Your task to perform on an android device: Open eBay Image 0: 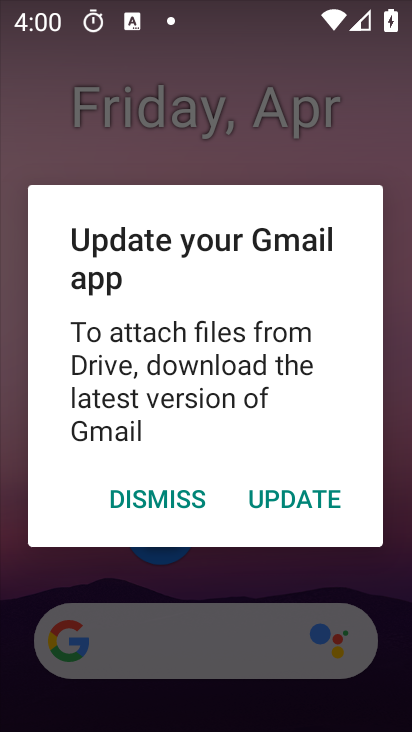
Step 0: click (185, 503)
Your task to perform on an android device: Open eBay Image 1: 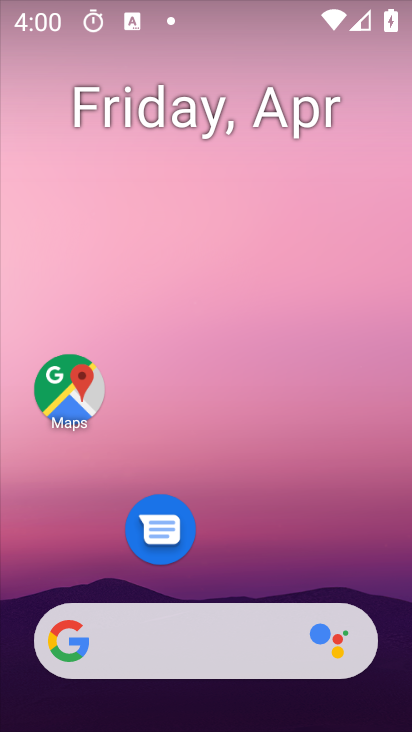
Step 1: drag from (219, 607) to (253, 84)
Your task to perform on an android device: Open eBay Image 2: 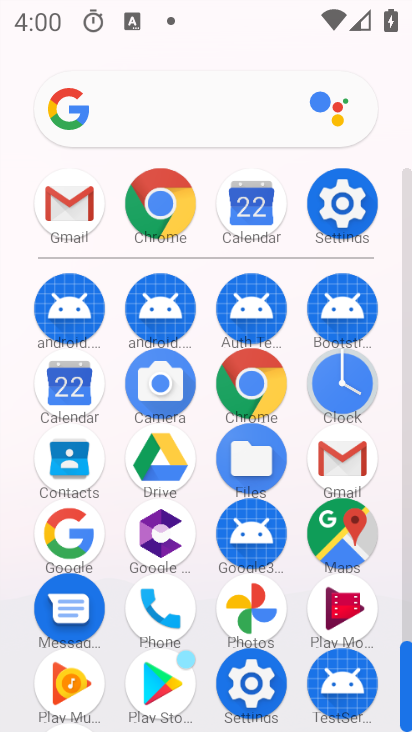
Step 2: drag from (246, 599) to (329, 145)
Your task to perform on an android device: Open eBay Image 3: 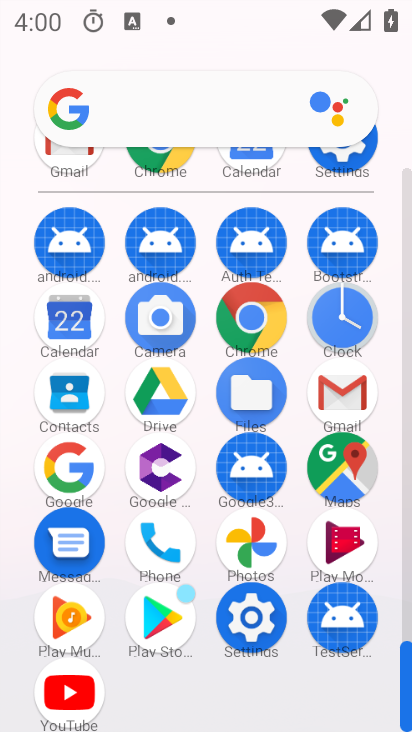
Step 3: click (263, 322)
Your task to perform on an android device: Open eBay Image 4: 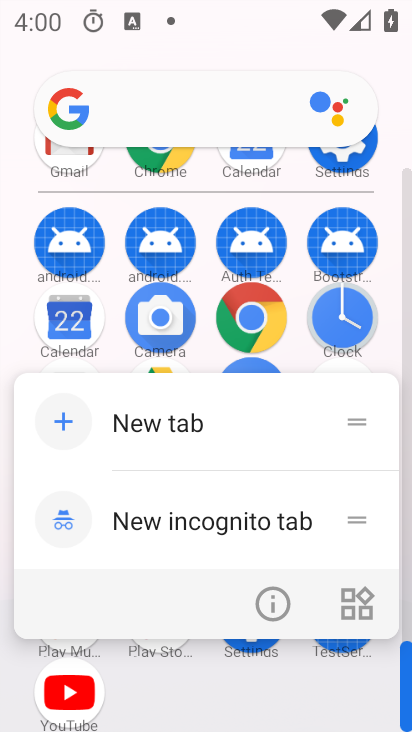
Step 4: click (263, 325)
Your task to perform on an android device: Open eBay Image 5: 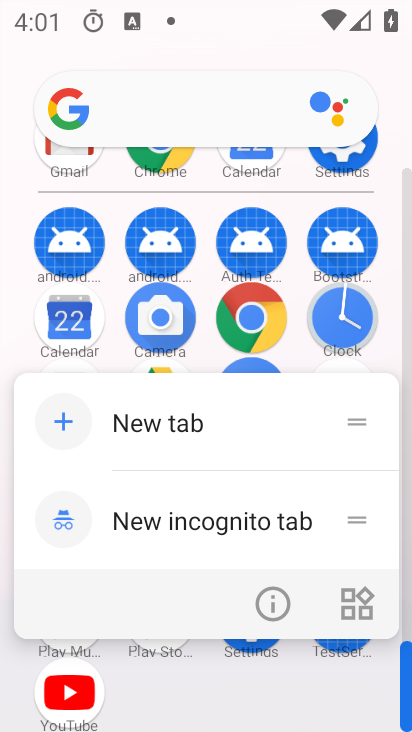
Step 5: click (247, 319)
Your task to perform on an android device: Open eBay Image 6: 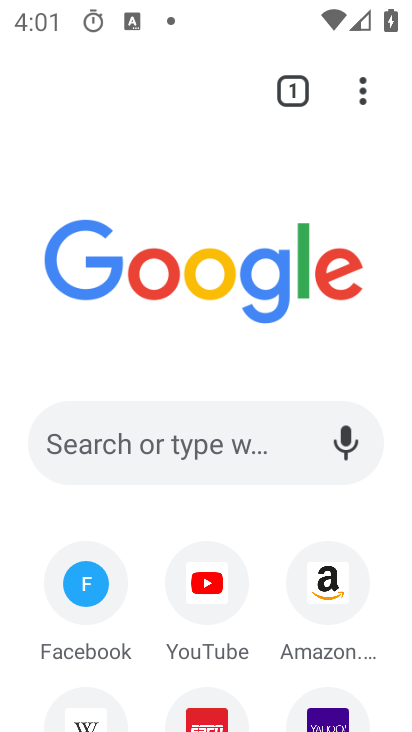
Step 6: drag from (228, 564) to (249, 304)
Your task to perform on an android device: Open eBay Image 7: 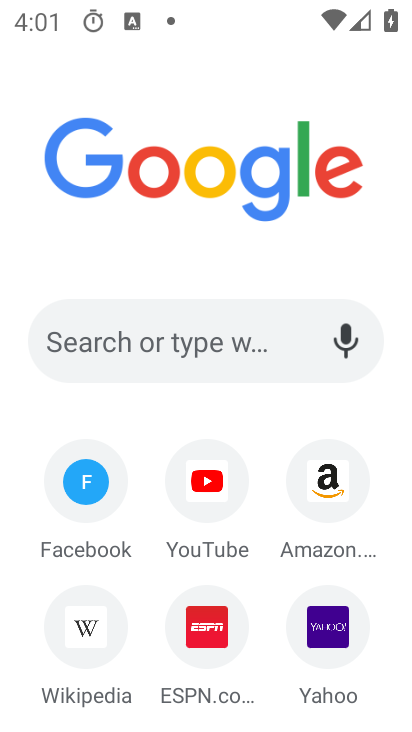
Step 7: click (234, 359)
Your task to perform on an android device: Open eBay Image 8: 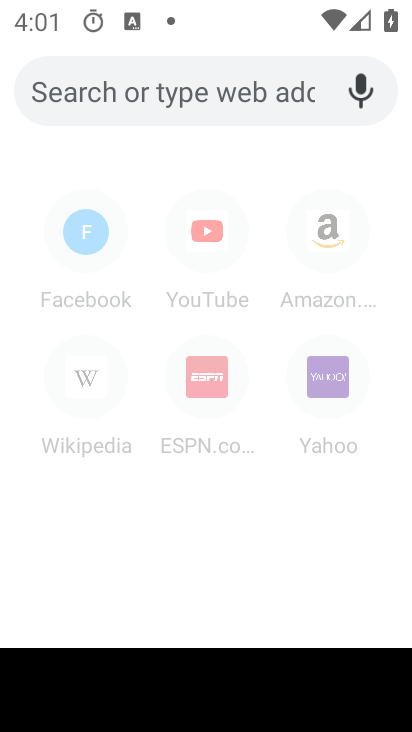
Step 8: type "ebay"
Your task to perform on an android device: Open eBay Image 9: 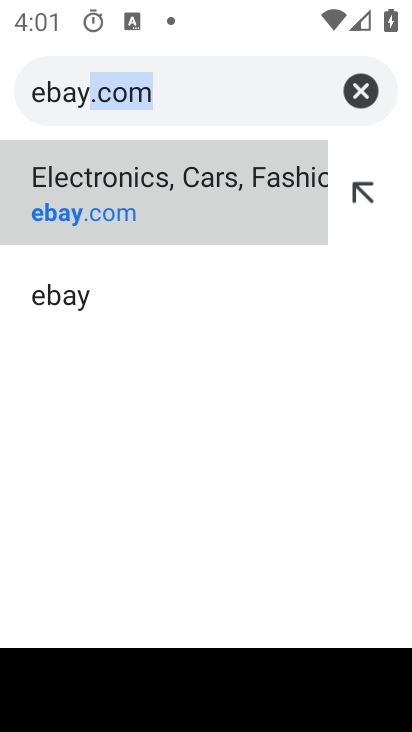
Step 9: click (188, 189)
Your task to perform on an android device: Open eBay Image 10: 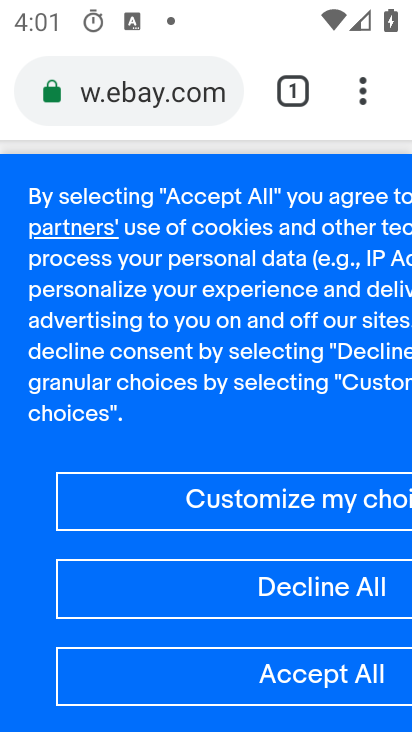
Step 10: task complete